Your task to perform on an android device: Go to internet settings Image 0: 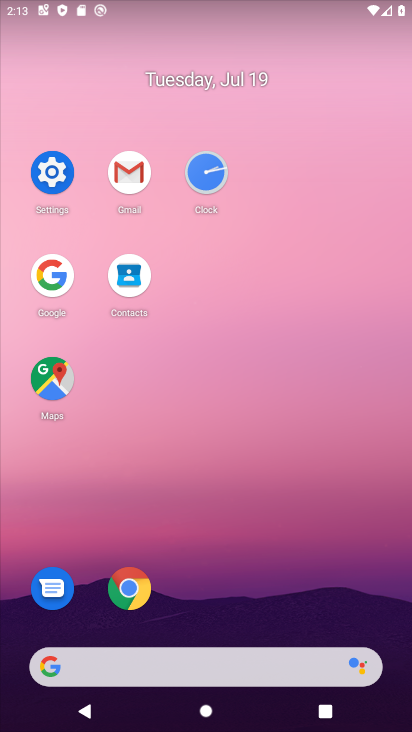
Step 0: click (55, 170)
Your task to perform on an android device: Go to internet settings Image 1: 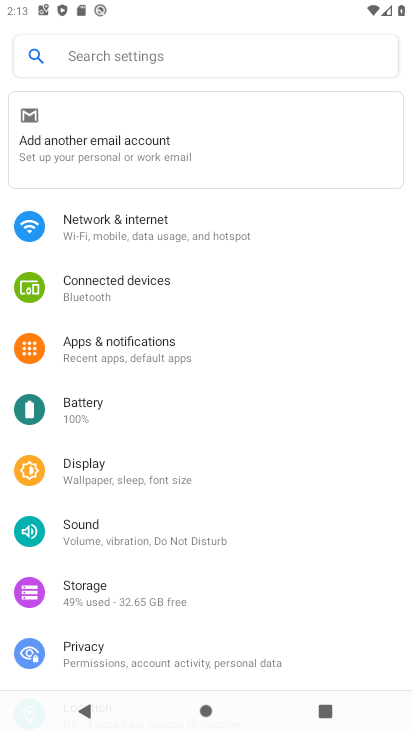
Step 1: click (166, 240)
Your task to perform on an android device: Go to internet settings Image 2: 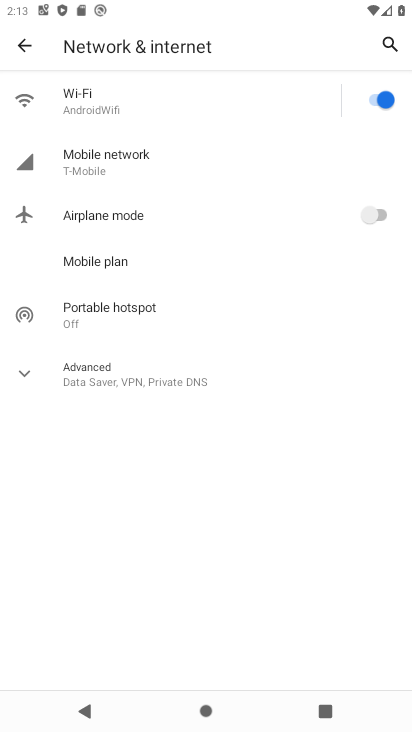
Step 2: task complete